Your task to perform on an android device: Open accessibility settings Image 0: 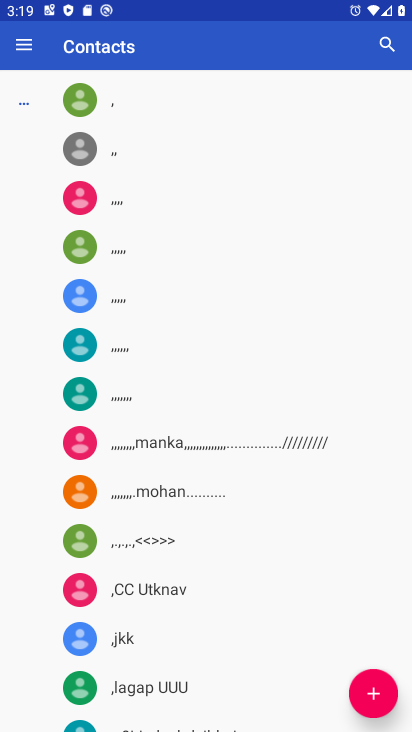
Step 0: press home button
Your task to perform on an android device: Open accessibility settings Image 1: 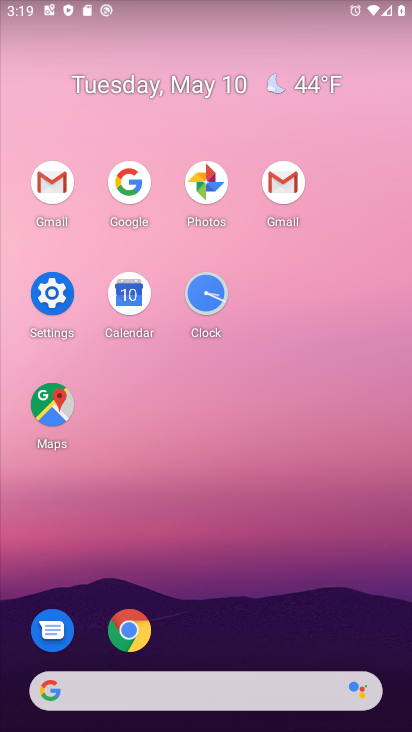
Step 1: click (58, 279)
Your task to perform on an android device: Open accessibility settings Image 2: 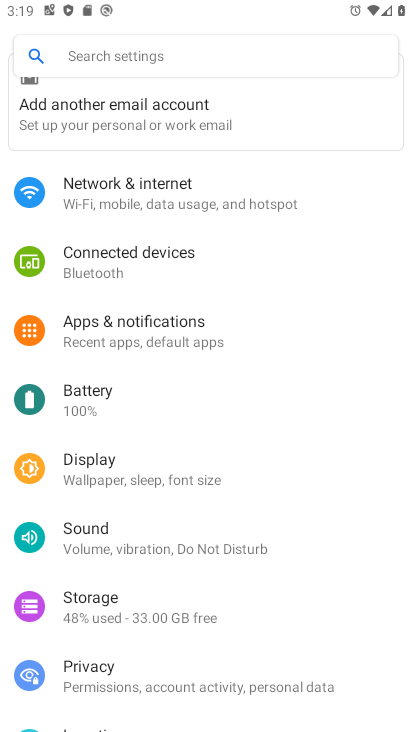
Step 2: drag from (213, 670) to (233, 241)
Your task to perform on an android device: Open accessibility settings Image 3: 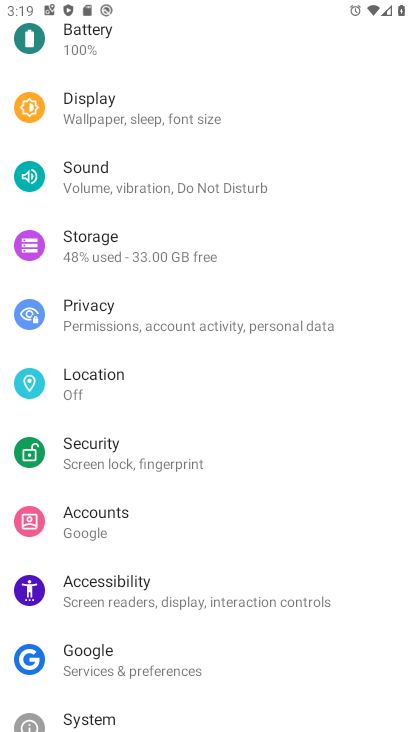
Step 3: click (156, 598)
Your task to perform on an android device: Open accessibility settings Image 4: 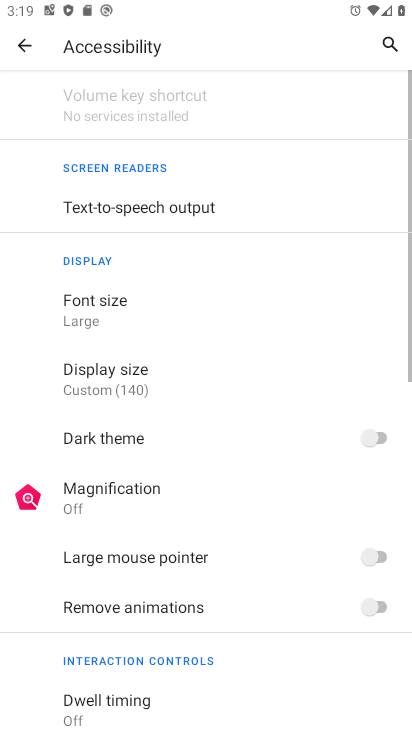
Step 4: task complete